Your task to perform on an android device: turn off wifi Image 0: 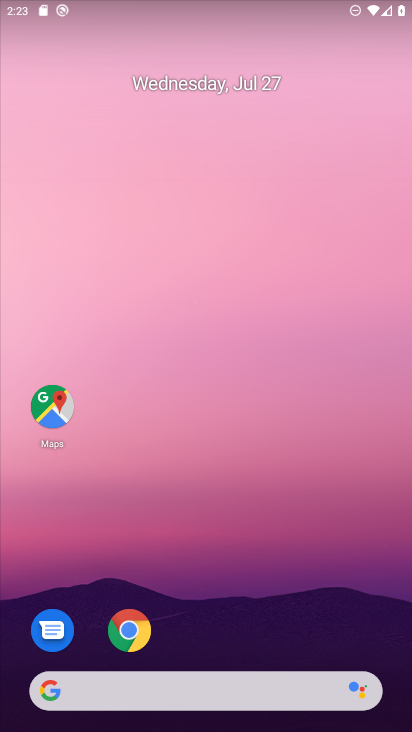
Step 0: drag from (358, 621) to (330, 101)
Your task to perform on an android device: turn off wifi Image 1: 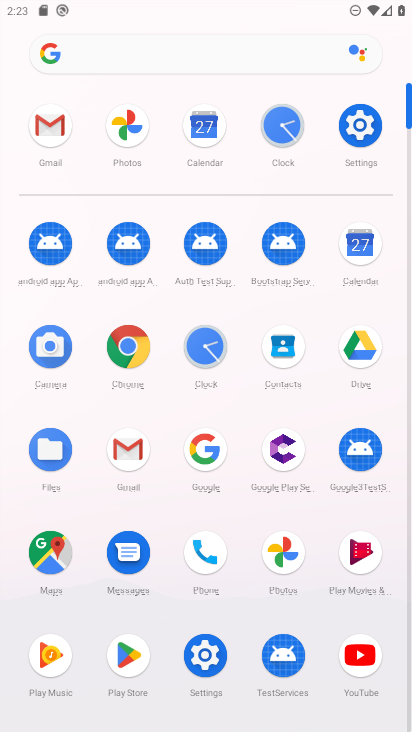
Step 1: click (206, 657)
Your task to perform on an android device: turn off wifi Image 2: 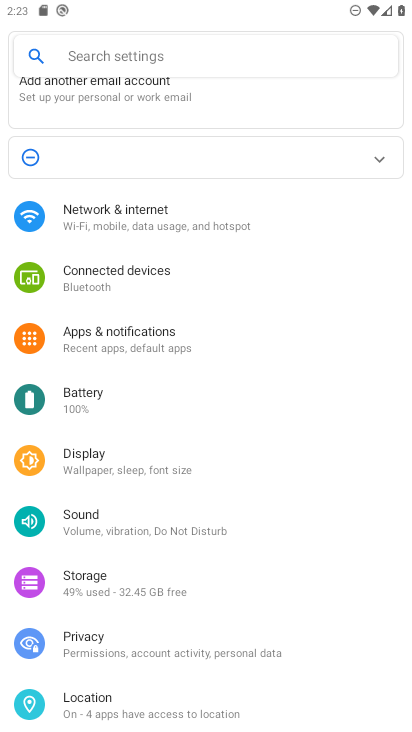
Step 2: click (107, 216)
Your task to perform on an android device: turn off wifi Image 3: 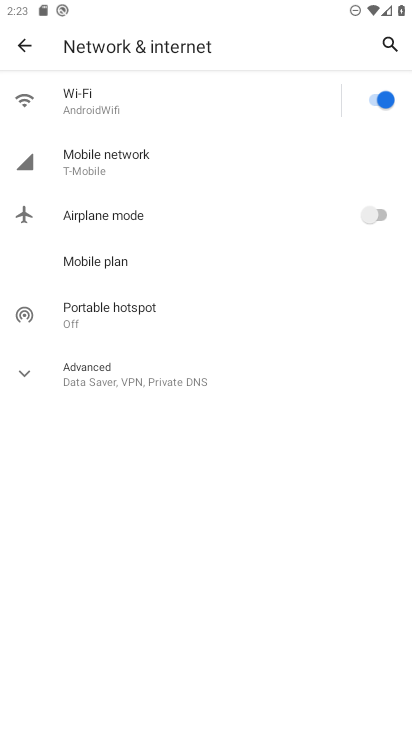
Step 3: click (373, 98)
Your task to perform on an android device: turn off wifi Image 4: 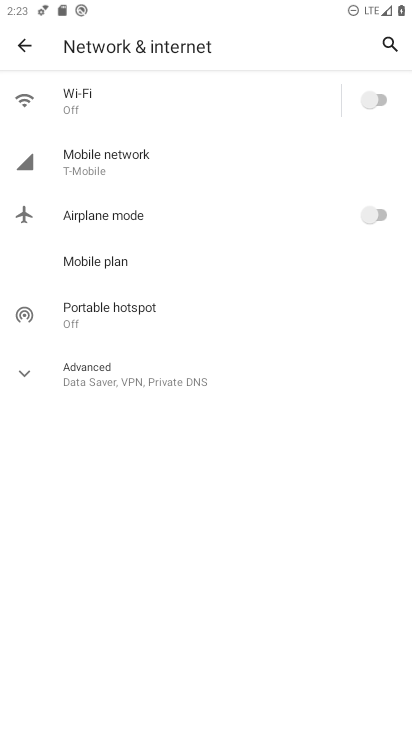
Step 4: task complete